Your task to perform on an android device: Do I have any events this weekend? Image 0: 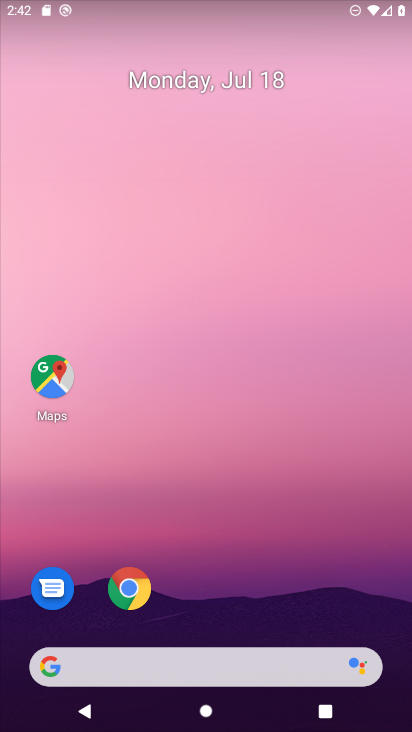
Step 0: drag from (345, 624) to (254, 54)
Your task to perform on an android device: Do I have any events this weekend? Image 1: 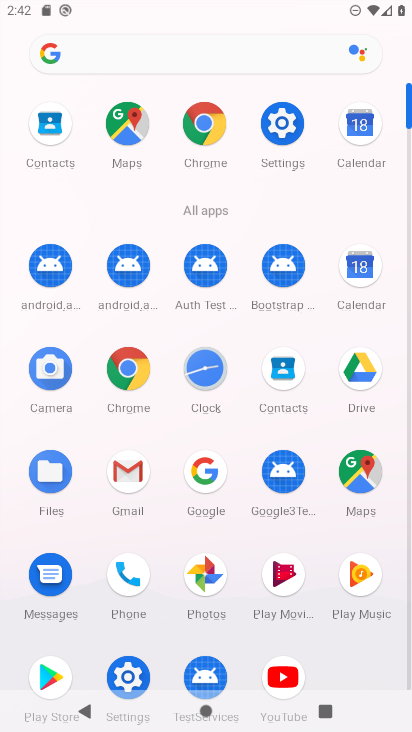
Step 1: click (366, 272)
Your task to perform on an android device: Do I have any events this weekend? Image 2: 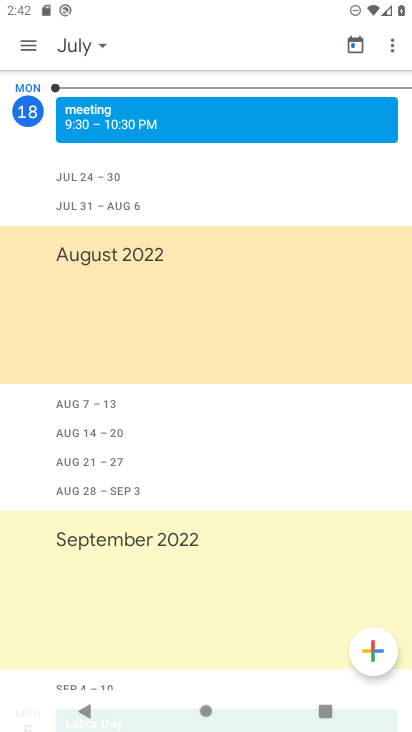
Step 2: click (29, 49)
Your task to perform on an android device: Do I have any events this weekend? Image 3: 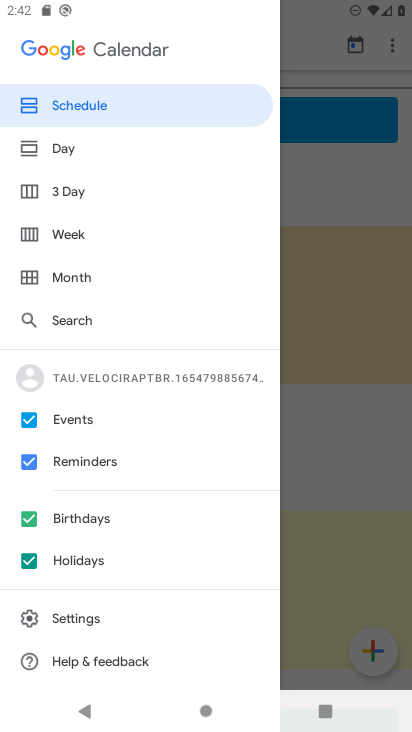
Step 3: click (57, 562)
Your task to perform on an android device: Do I have any events this weekend? Image 4: 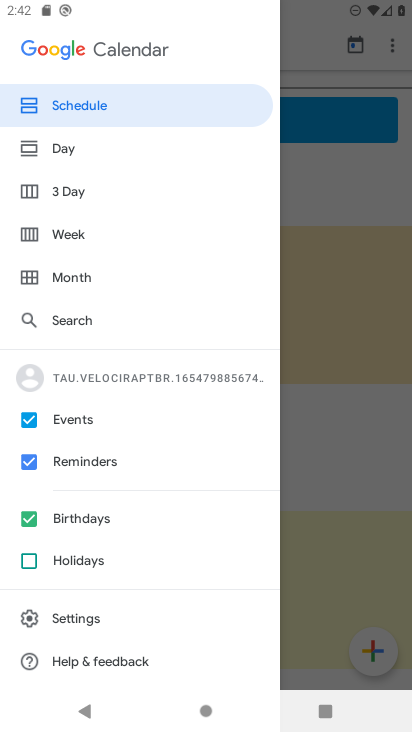
Step 4: click (63, 525)
Your task to perform on an android device: Do I have any events this weekend? Image 5: 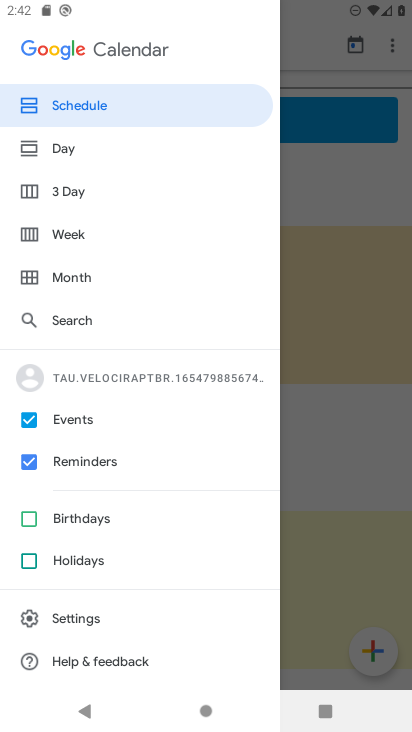
Step 5: click (55, 464)
Your task to perform on an android device: Do I have any events this weekend? Image 6: 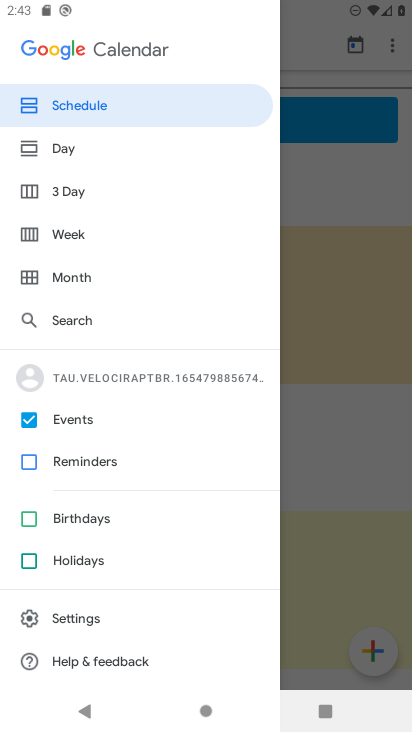
Step 6: click (75, 232)
Your task to perform on an android device: Do I have any events this weekend? Image 7: 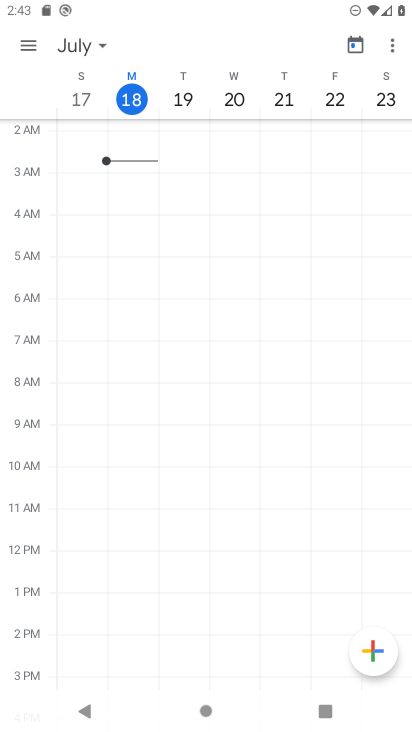
Step 7: task complete